Your task to perform on an android device: Go to internet settings Image 0: 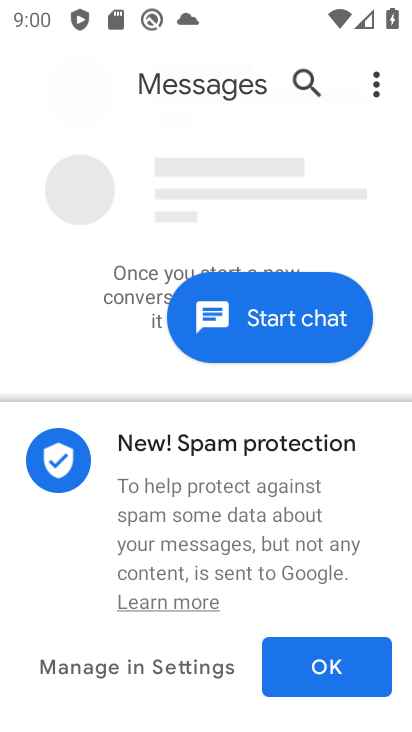
Step 0: press home button
Your task to perform on an android device: Go to internet settings Image 1: 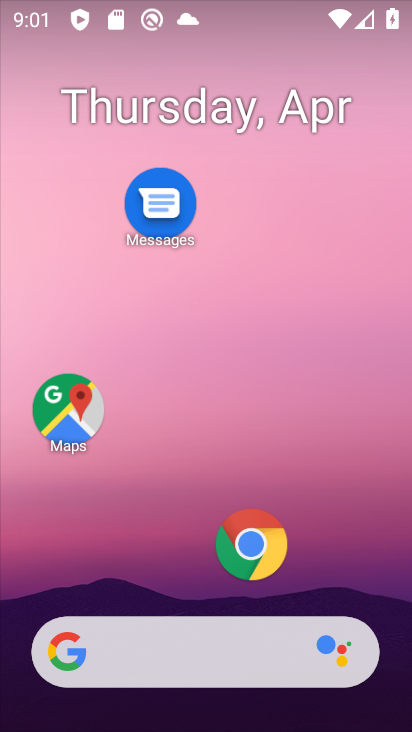
Step 1: drag from (187, 598) to (225, 278)
Your task to perform on an android device: Go to internet settings Image 2: 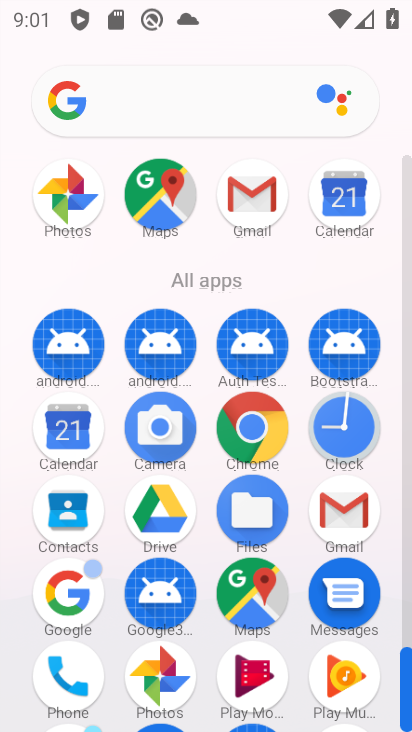
Step 2: drag from (204, 708) to (187, 197)
Your task to perform on an android device: Go to internet settings Image 3: 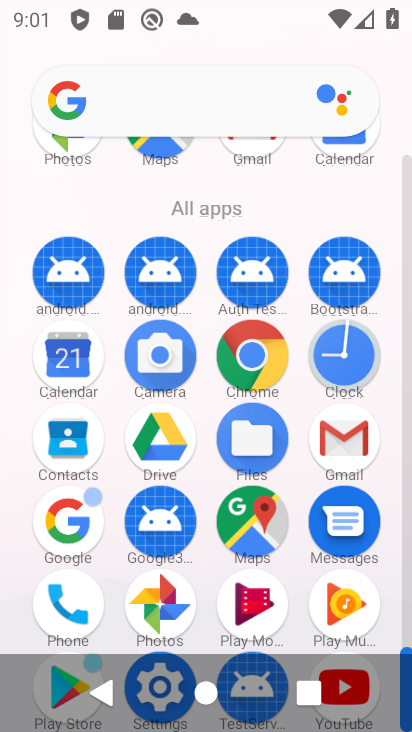
Step 3: drag from (213, 636) to (261, 198)
Your task to perform on an android device: Go to internet settings Image 4: 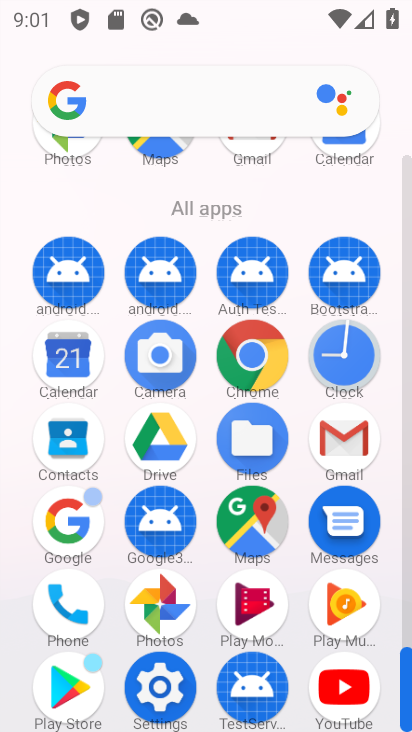
Step 4: click (154, 684)
Your task to perform on an android device: Go to internet settings Image 5: 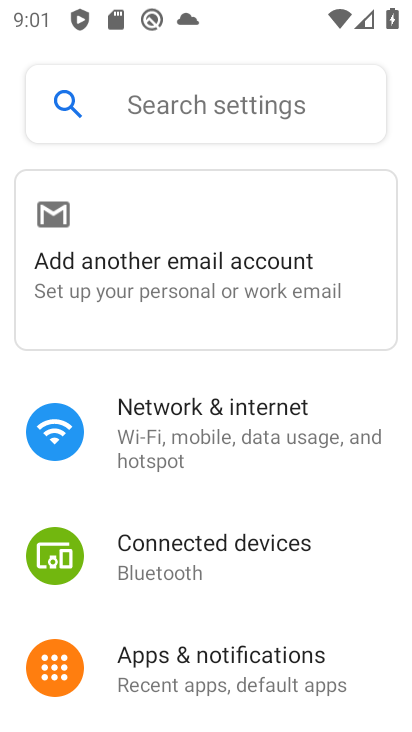
Step 5: click (213, 430)
Your task to perform on an android device: Go to internet settings Image 6: 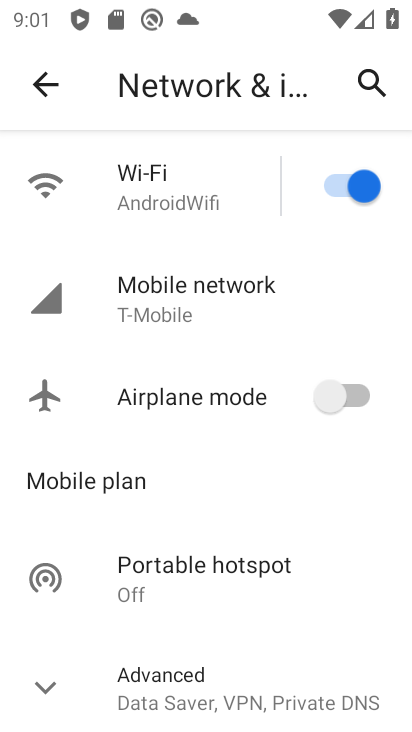
Step 6: click (197, 691)
Your task to perform on an android device: Go to internet settings Image 7: 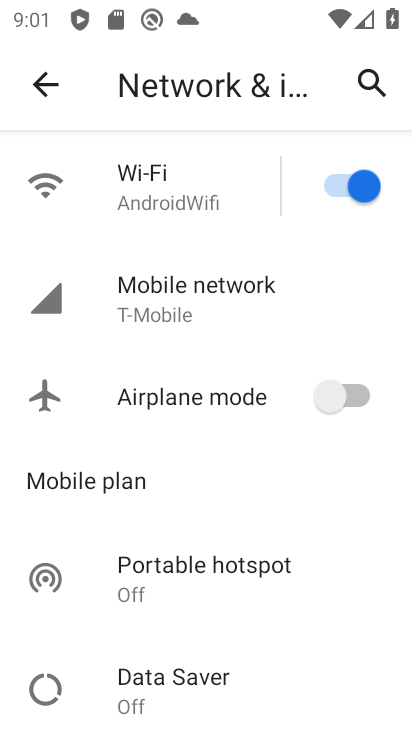
Step 7: task complete